Your task to perform on an android device: turn pop-ups on in chrome Image 0: 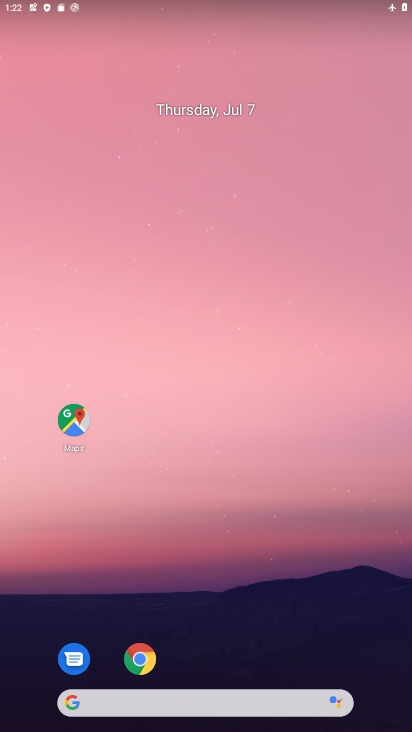
Step 0: click (140, 655)
Your task to perform on an android device: turn pop-ups on in chrome Image 1: 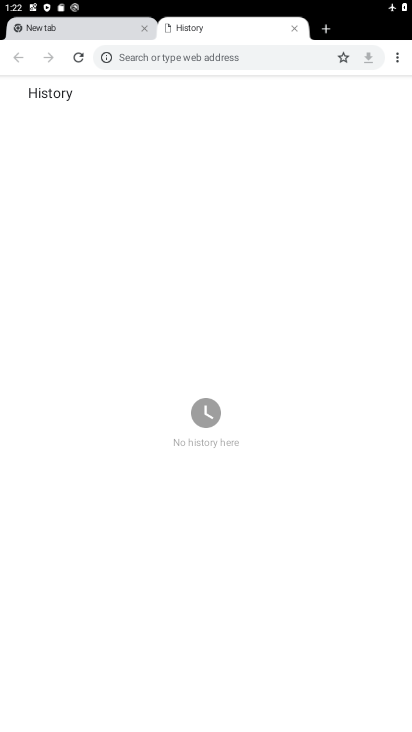
Step 1: click (397, 52)
Your task to perform on an android device: turn pop-ups on in chrome Image 2: 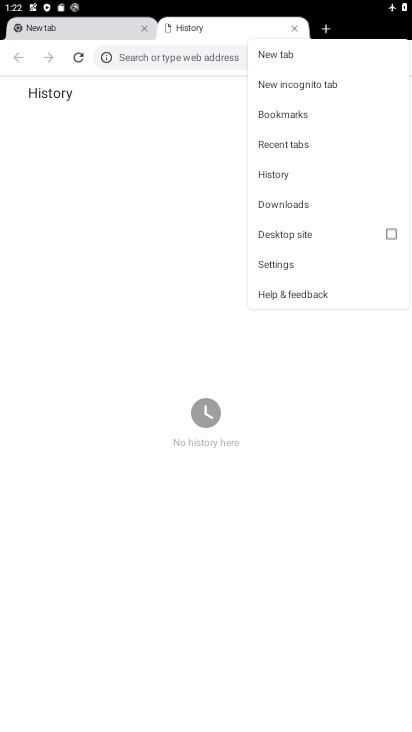
Step 2: click (297, 260)
Your task to perform on an android device: turn pop-ups on in chrome Image 3: 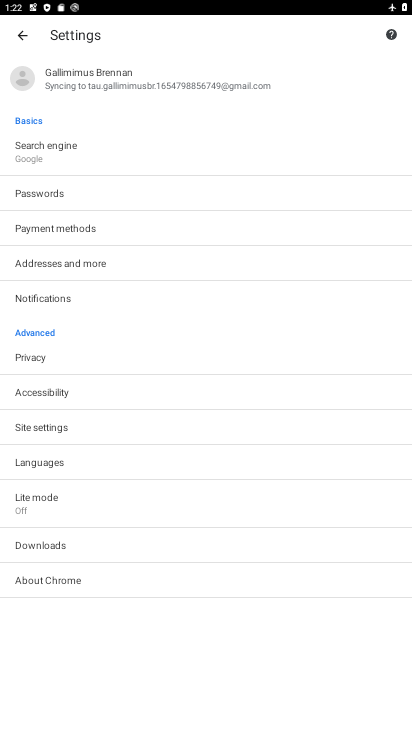
Step 3: click (83, 422)
Your task to perform on an android device: turn pop-ups on in chrome Image 4: 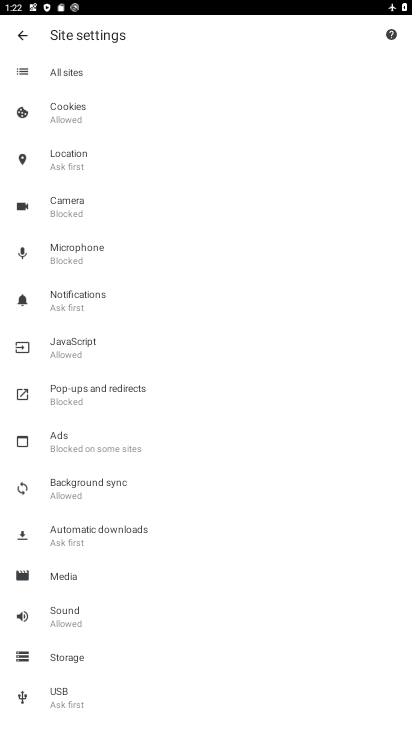
Step 4: click (99, 395)
Your task to perform on an android device: turn pop-ups on in chrome Image 5: 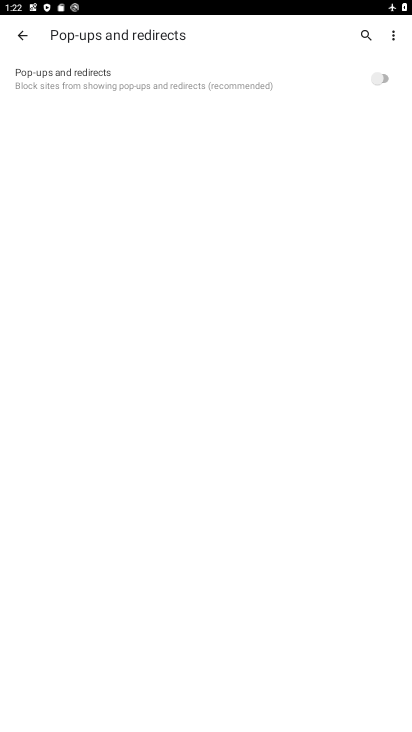
Step 5: click (378, 75)
Your task to perform on an android device: turn pop-ups on in chrome Image 6: 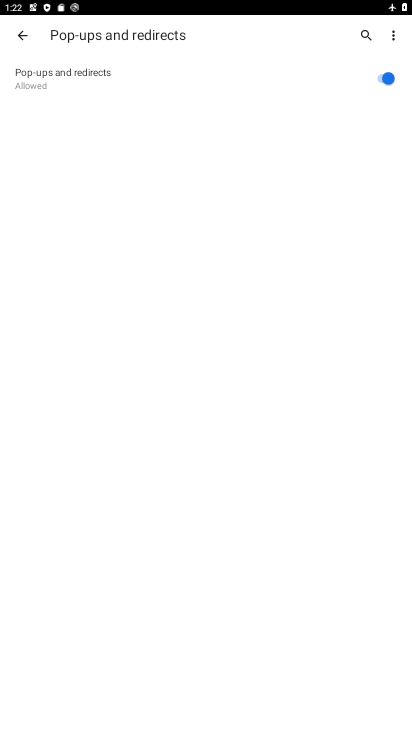
Step 6: task complete